Your task to perform on an android device: Open display settings Image 0: 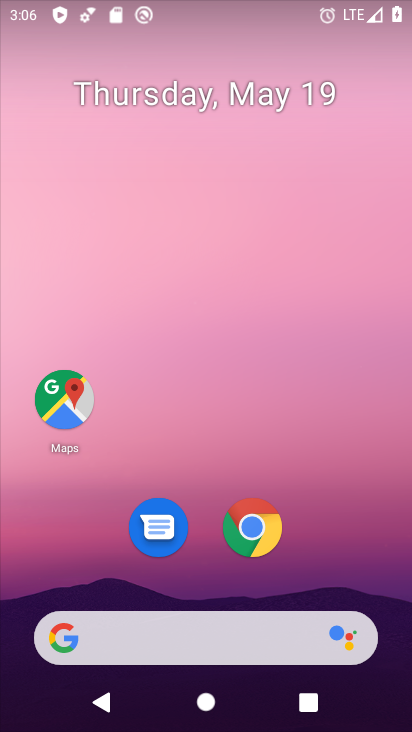
Step 0: drag from (213, 492) to (284, 106)
Your task to perform on an android device: Open display settings Image 1: 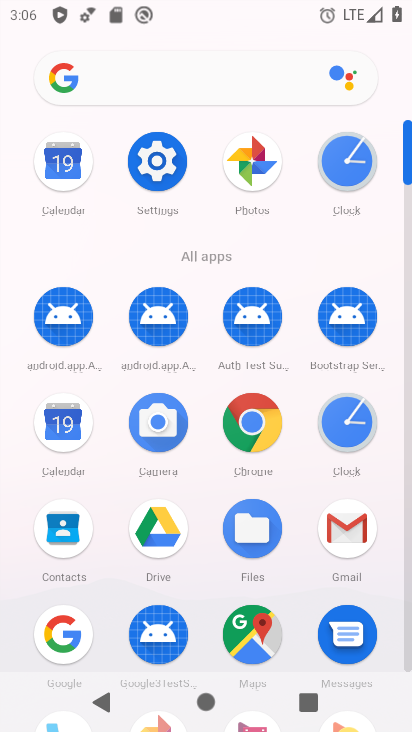
Step 1: click (168, 161)
Your task to perform on an android device: Open display settings Image 2: 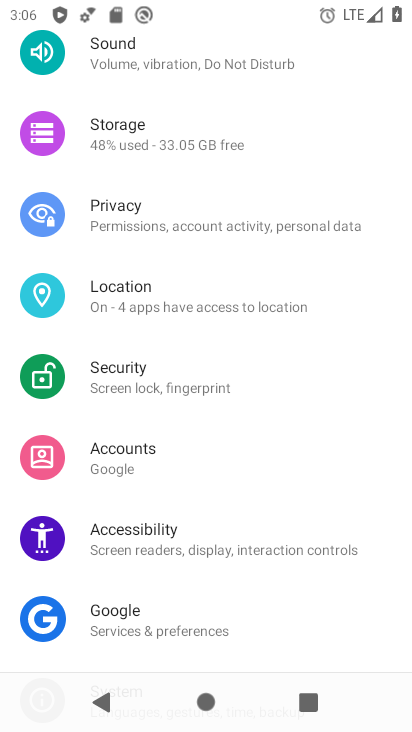
Step 2: drag from (191, 153) to (178, 571)
Your task to perform on an android device: Open display settings Image 3: 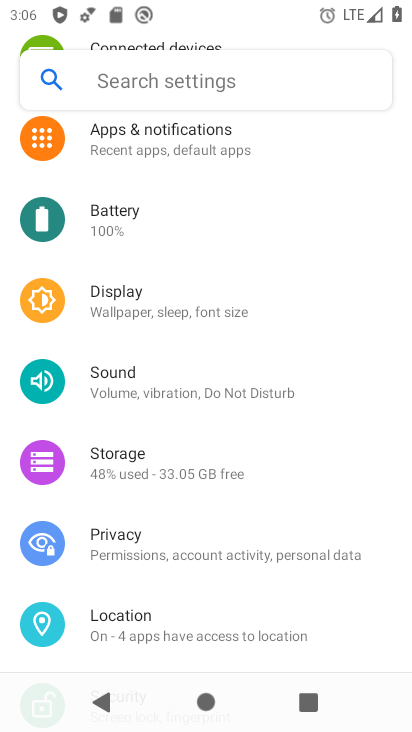
Step 3: click (133, 296)
Your task to perform on an android device: Open display settings Image 4: 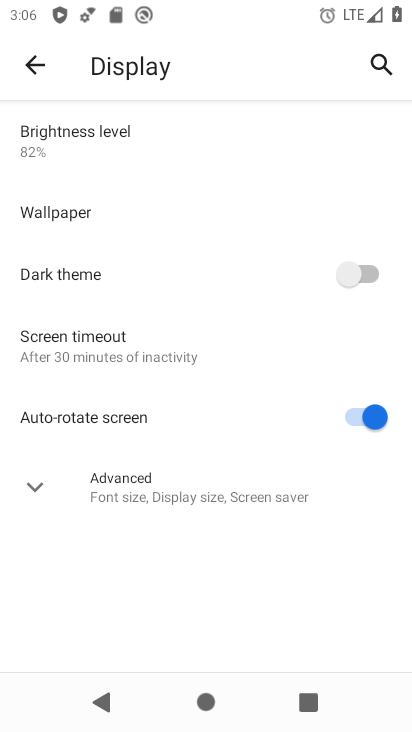
Step 4: task complete